Your task to perform on an android device: View the shopping cart on newegg.com. Add razer nari to the cart on newegg.com, then select checkout. Image 0: 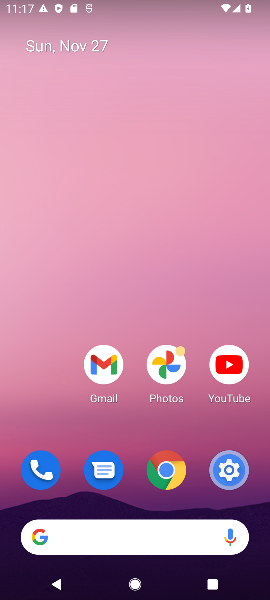
Step 0: click (164, 538)
Your task to perform on an android device: View the shopping cart on newegg.com. Add razer nari to the cart on newegg.com, then select checkout. Image 1: 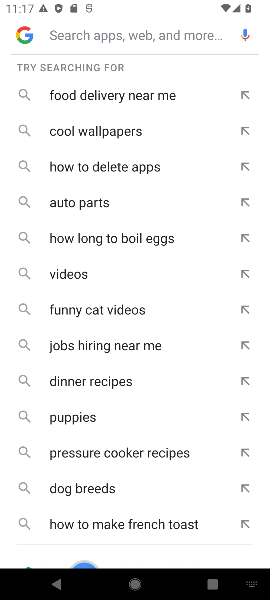
Step 1: task complete